Your task to perform on an android device: turn smart compose on in the gmail app Image 0: 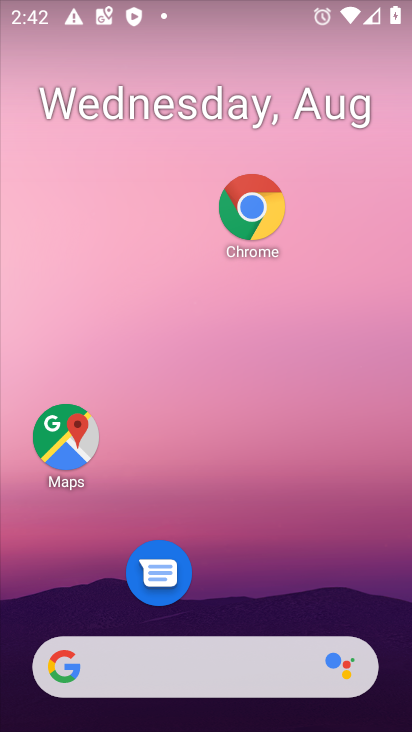
Step 0: drag from (203, 579) to (289, 131)
Your task to perform on an android device: turn smart compose on in the gmail app Image 1: 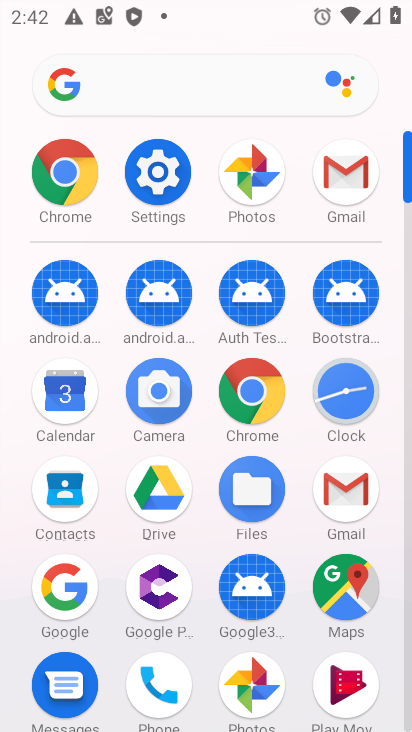
Step 1: click (335, 503)
Your task to perform on an android device: turn smart compose on in the gmail app Image 2: 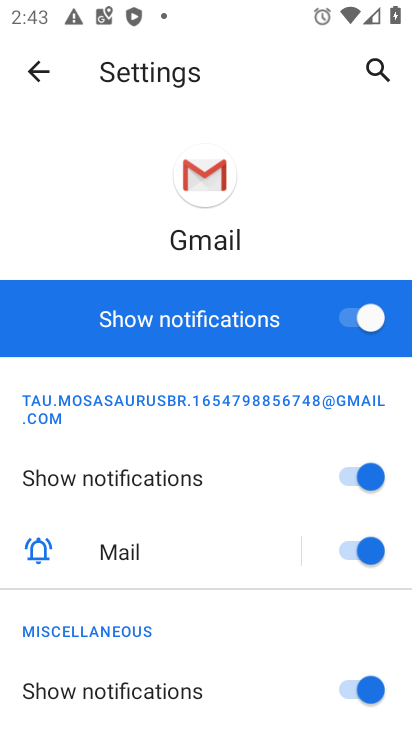
Step 2: click (26, 86)
Your task to perform on an android device: turn smart compose on in the gmail app Image 3: 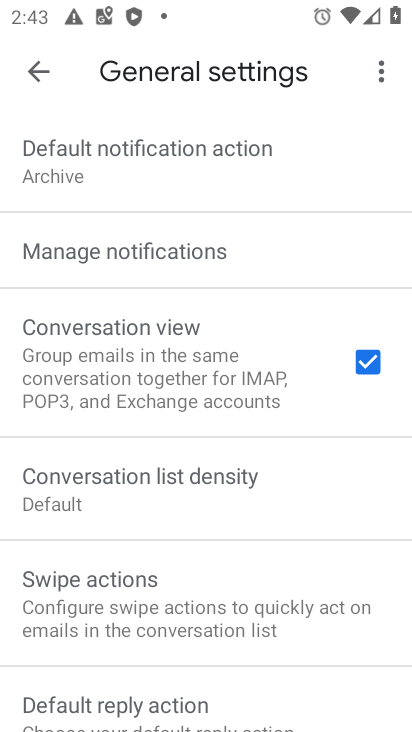
Step 3: click (56, 73)
Your task to perform on an android device: turn smart compose on in the gmail app Image 4: 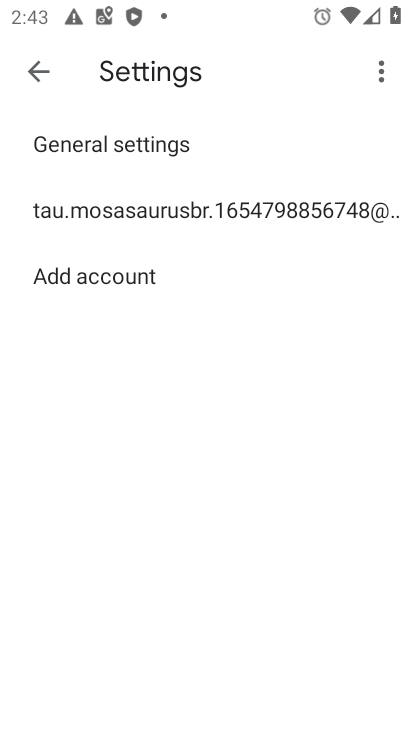
Step 4: click (139, 225)
Your task to perform on an android device: turn smart compose on in the gmail app Image 5: 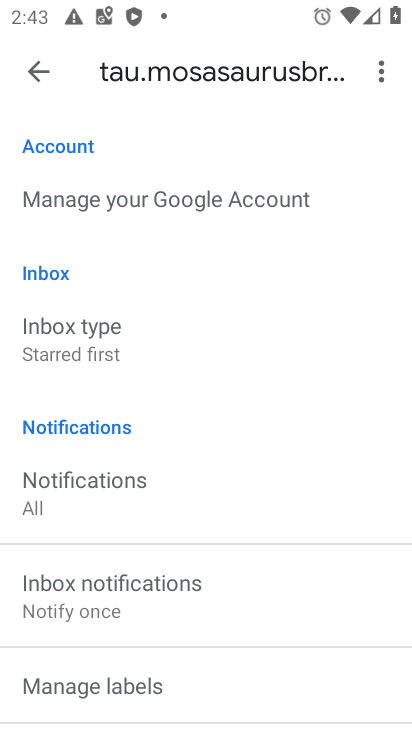
Step 5: task complete